Your task to perform on an android device: Check the weather Image 0: 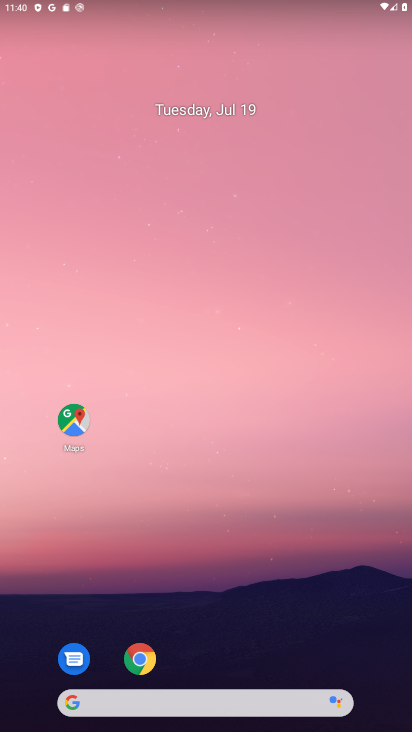
Step 0: drag from (339, 635) to (311, 102)
Your task to perform on an android device: Check the weather Image 1: 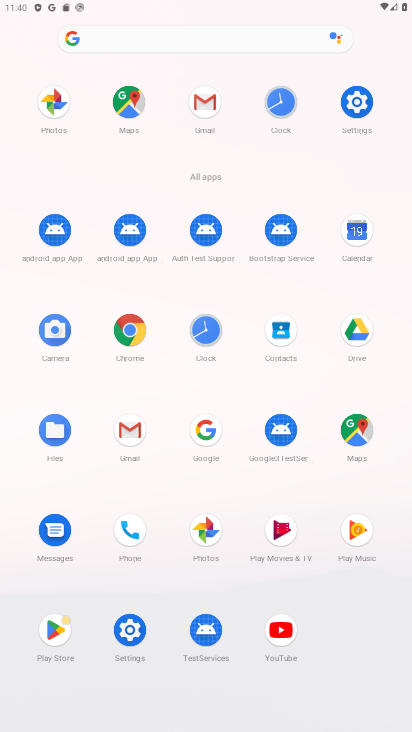
Step 1: click (126, 332)
Your task to perform on an android device: Check the weather Image 2: 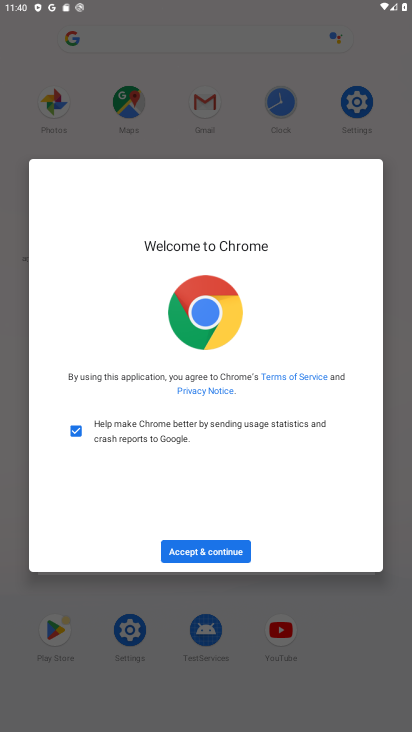
Step 2: click (216, 557)
Your task to perform on an android device: Check the weather Image 3: 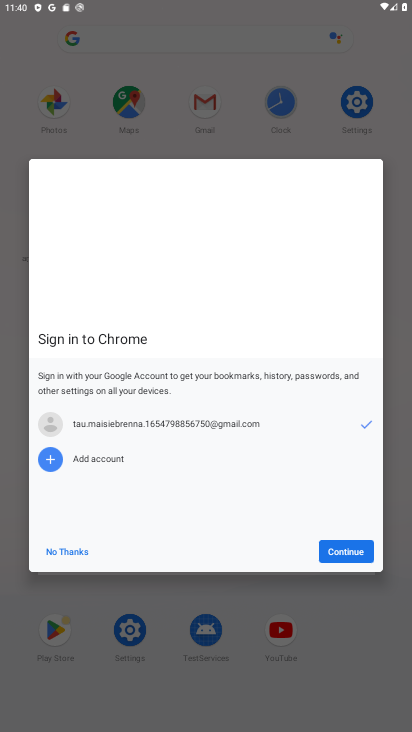
Step 3: click (340, 560)
Your task to perform on an android device: Check the weather Image 4: 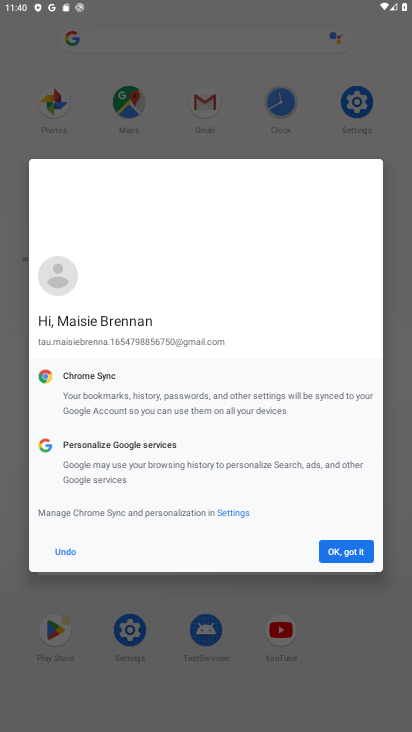
Step 4: click (340, 560)
Your task to perform on an android device: Check the weather Image 5: 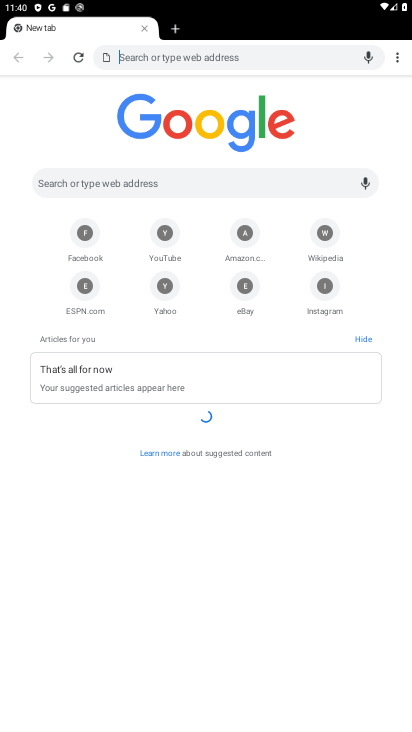
Step 5: click (280, 61)
Your task to perform on an android device: Check the weather Image 6: 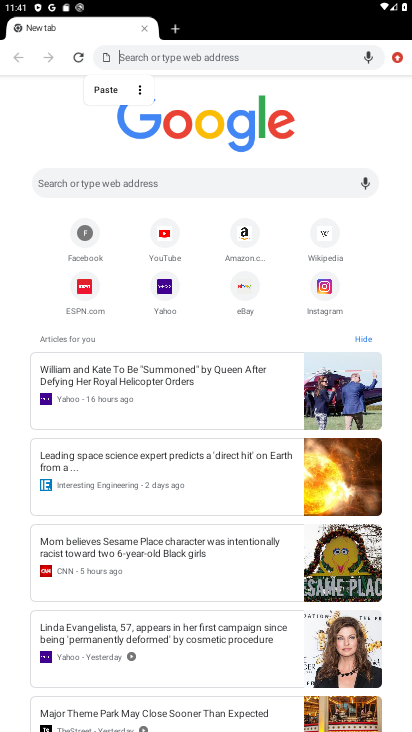
Step 6: type "weather"
Your task to perform on an android device: Check the weather Image 7: 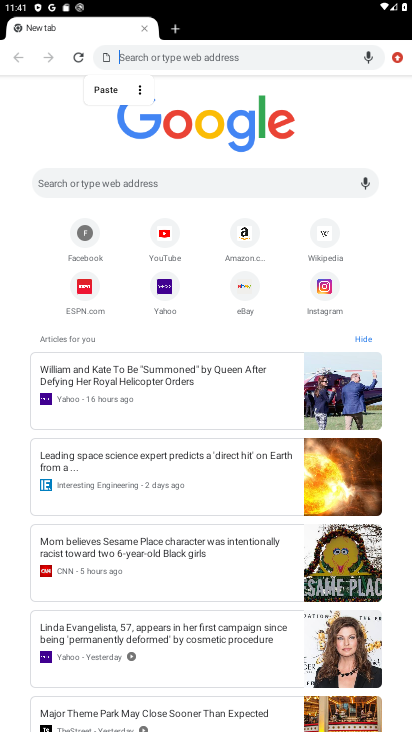
Step 7: drag from (264, 182) to (242, 50)
Your task to perform on an android device: Check the weather Image 8: 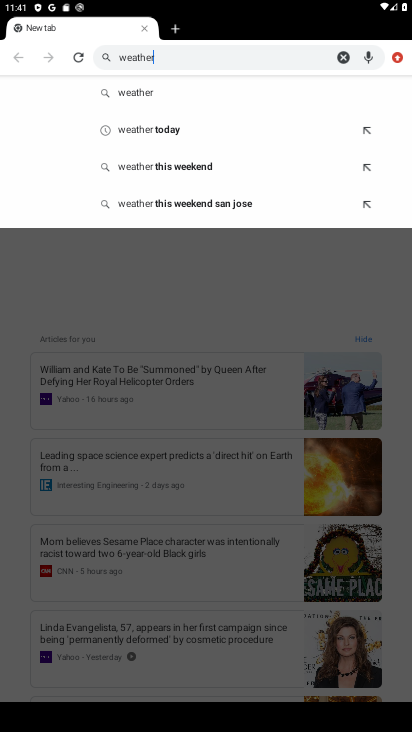
Step 8: click (179, 90)
Your task to perform on an android device: Check the weather Image 9: 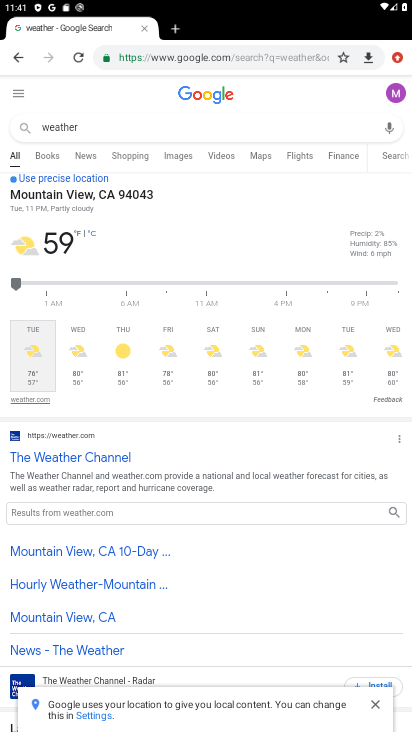
Step 9: task complete